Your task to perform on an android device: Find coffee shops on Maps Image 0: 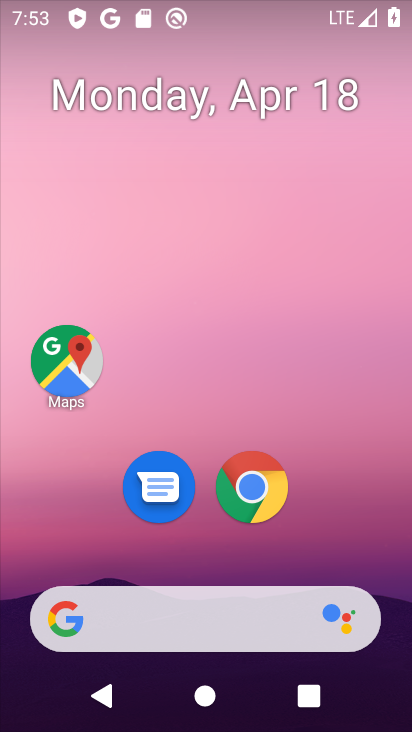
Step 0: drag from (204, 713) to (204, 46)
Your task to perform on an android device: Find coffee shops on Maps Image 1: 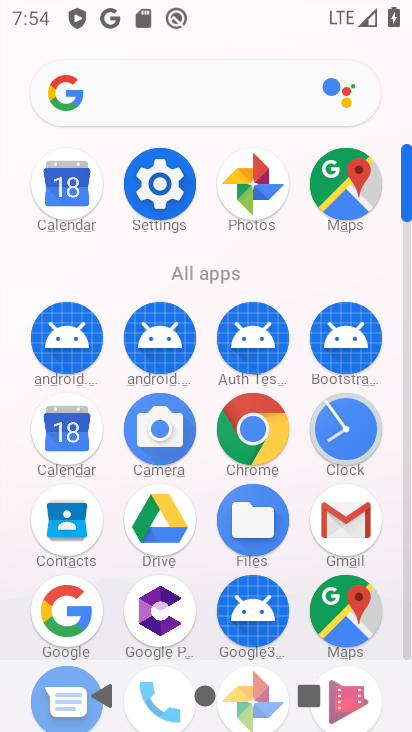
Step 1: click (342, 606)
Your task to perform on an android device: Find coffee shops on Maps Image 2: 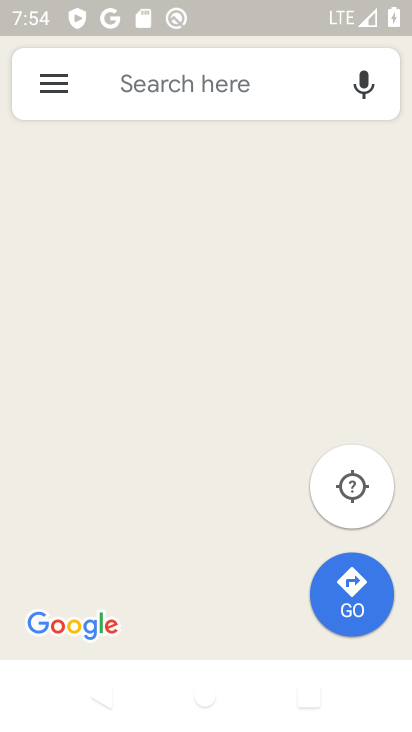
Step 2: click (183, 92)
Your task to perform on an android device: Find coffee shops on Maps Image 3: 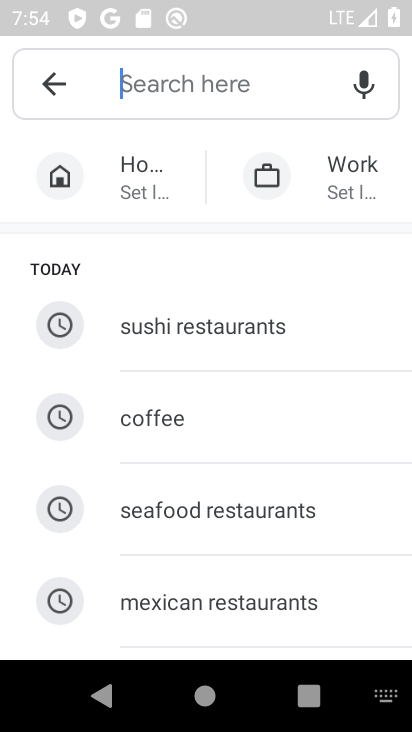
Step 3: type "coffee shops"
Your task to perform on an android device: Find coffee shops on Maps Image 4: 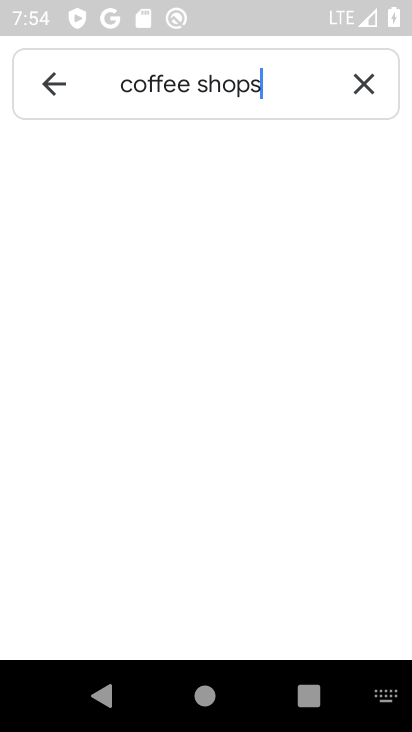
Step 4: type ""
Your task to perform on an android device: Find coffee shops on Maps Image 5: 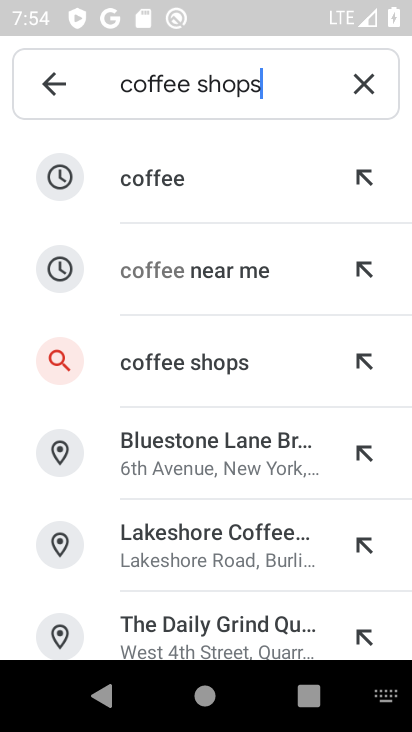
Step 5: click (136, 361)
Your task to perform on an android device: Find coffee shops on Maps Image 6: 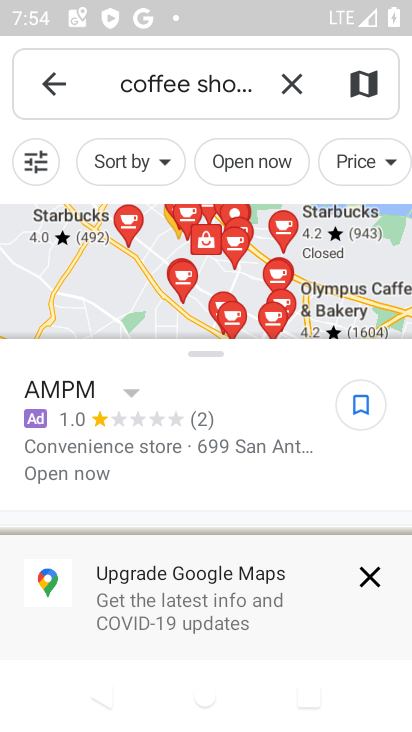
Step 6: task complete